Your task to perform on an android device: Add razer huntsman to the cart on amazon, then select checkout. Image 0: 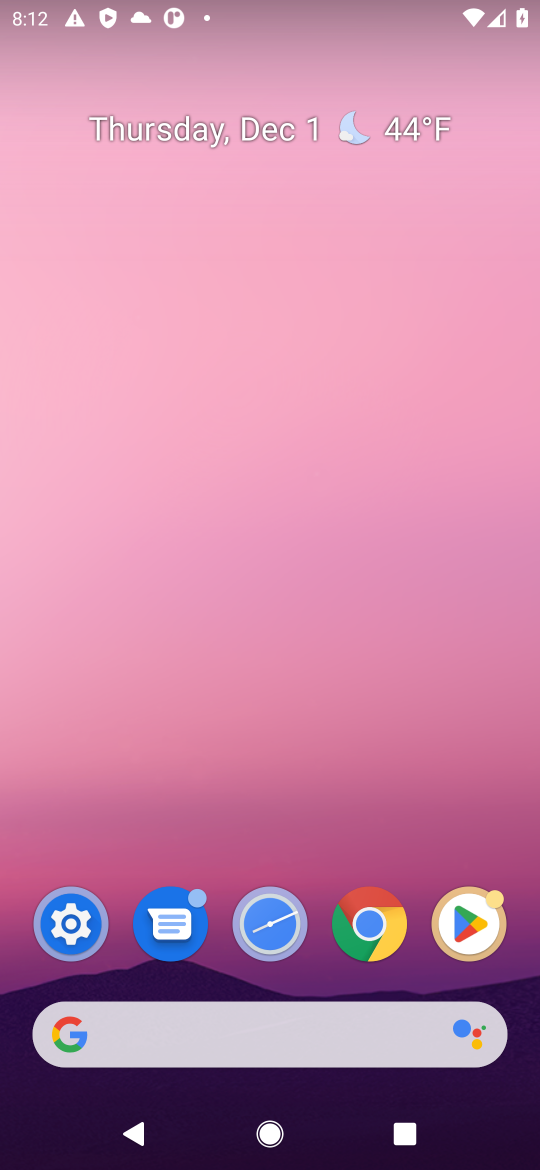
Step 0: click (313, 1044)
Your task to perform on an android device: Add razer huntsman to the cart on amazon, then select checkout. Image 1: 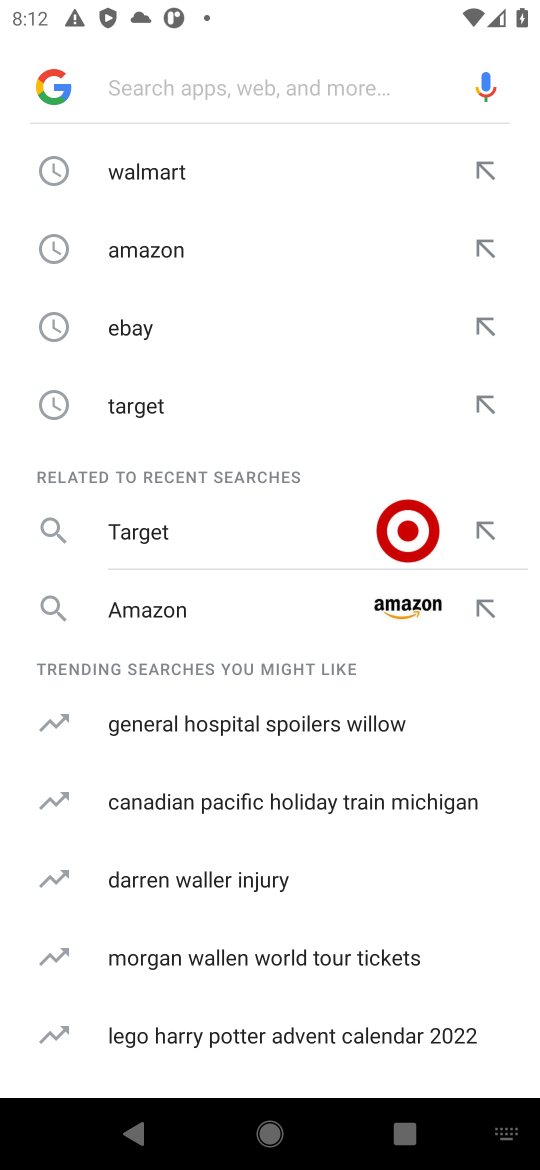
Step 1: click (277, 618)
Your task to perform on an android device: Add razer huntsman to the cart on amazon, then select checkout. Image 2: 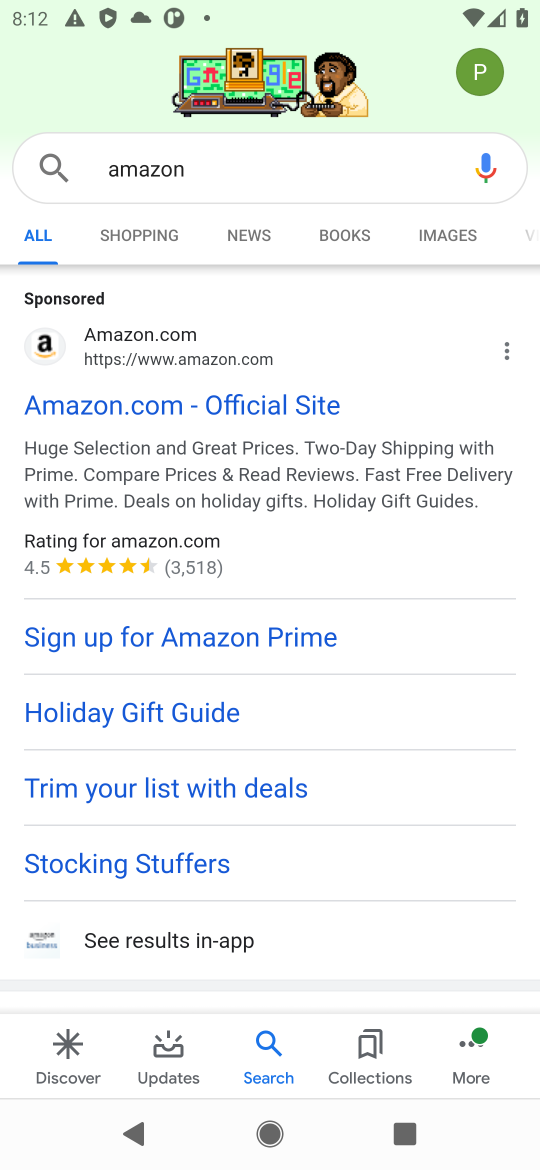
Step 2: click (149, 392)
Your task to perform on an android device: Add razer huntsman to the cart on amazon, then select checkout. Image 3: 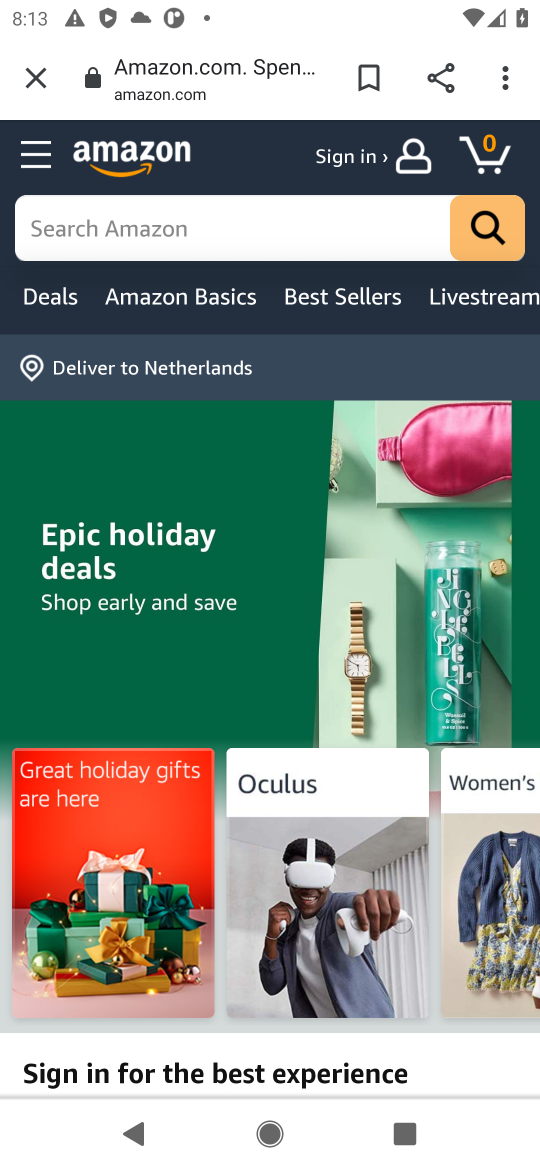
Step 3: click (146, 235)
Your task to perform on an android device: Add razer huntsman to the cart on amazon, then select checkout. Image 4: 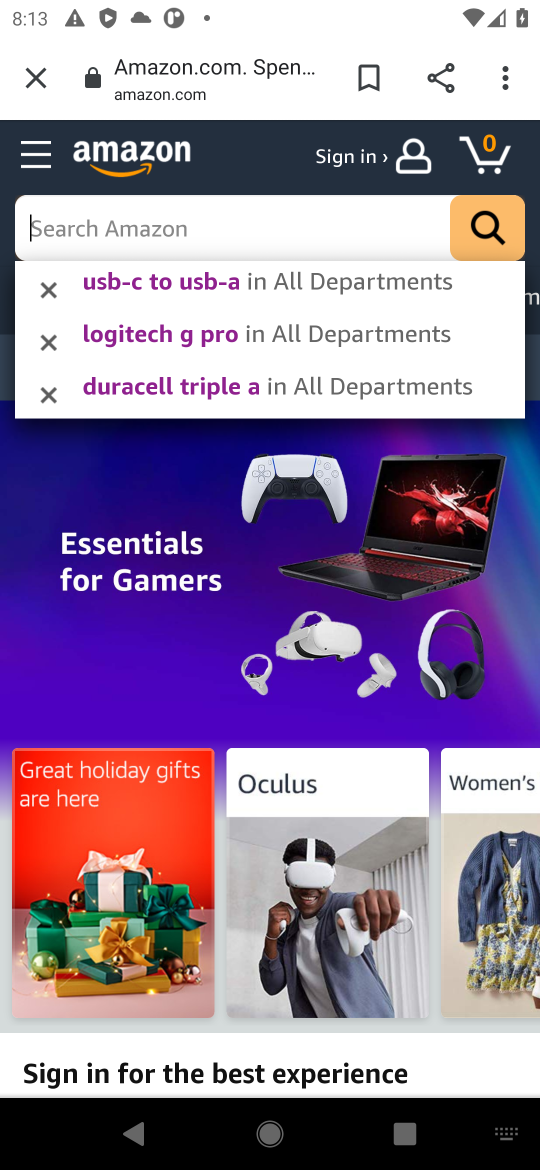
Step 4: type "razer huntsman"
Your task to perform on an android device: Add razer huntsman to the cart on amazon, then select checkout. Image 5: 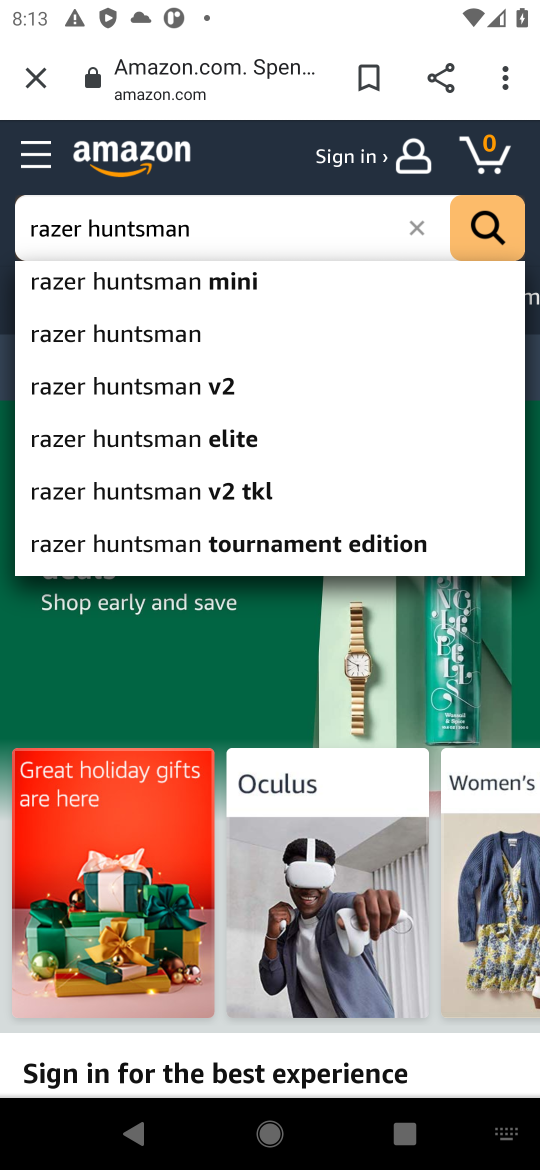
Step 5: click (499, 243)
Your task to perform on an android device: Add razer huntsman to the cart on amazon, then select checkout. Image 6: 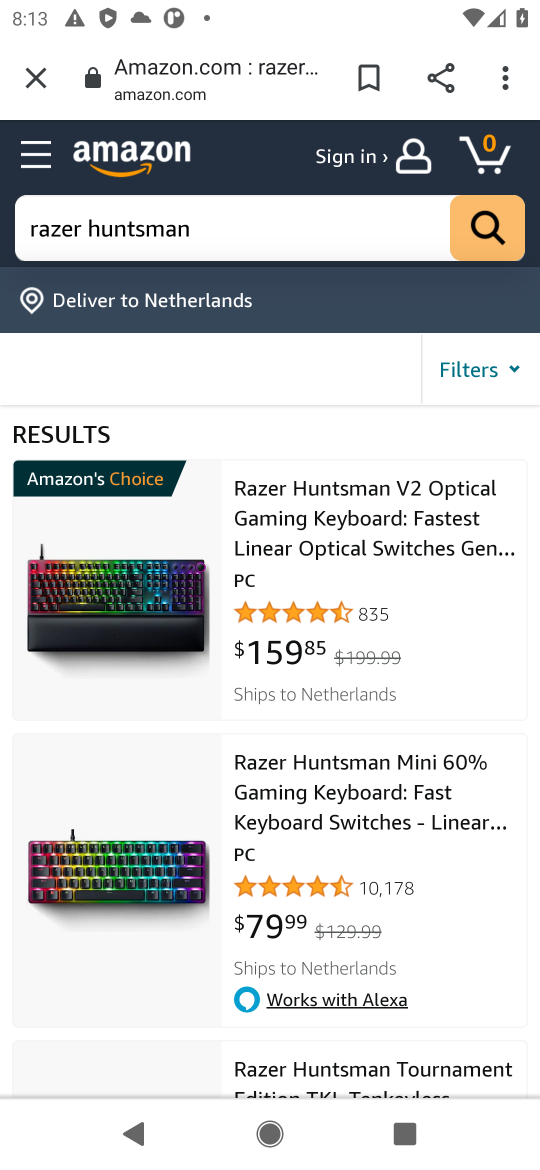
Step 6: click (275, 503)
Your task to perform on an android device: Add razer huntsman to the cart on amazon, then select checkout. Image 7: 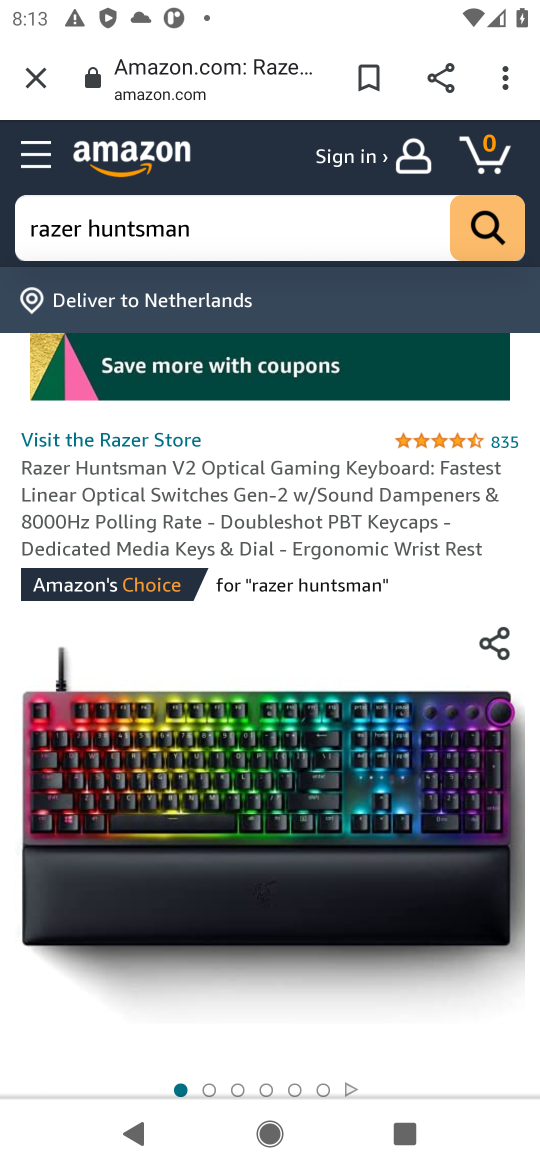
Step 7: task complete